Your task to perform on an android device: Open Wikipedia Image 0: 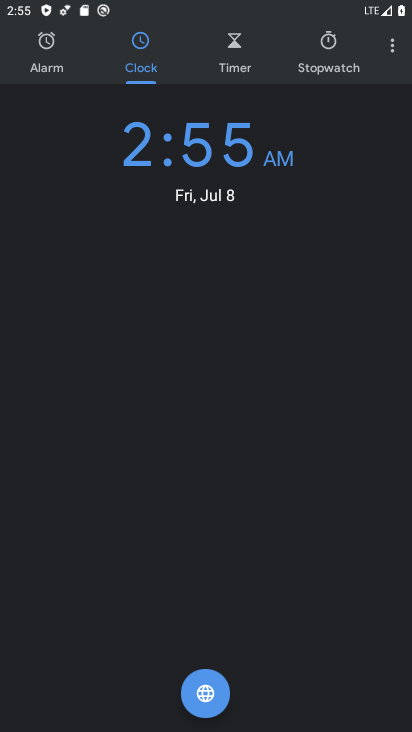
Step 0: press home button
Your task to perform on an android device: Open Wikipedia Image 1: 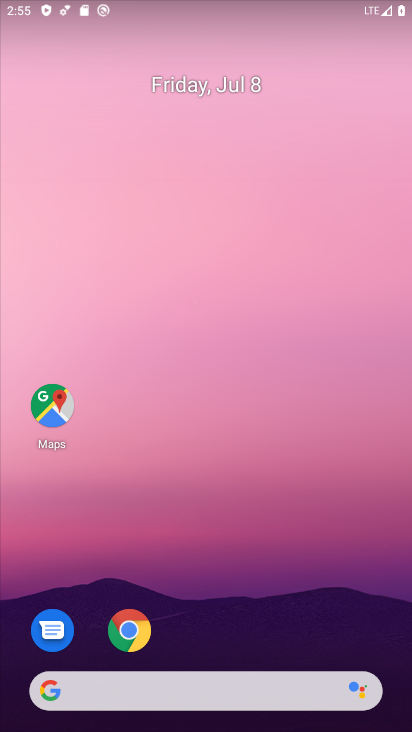
Step 1: click (225, 684)
Your task to perform on an android device: Open Wikipedia Image 2: 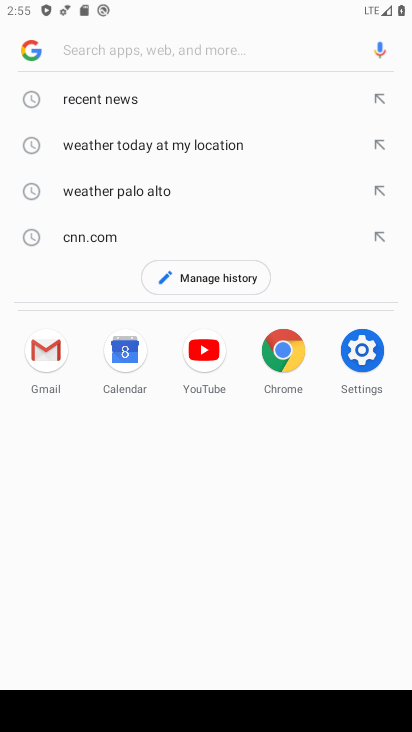
Step 2: type "wikipedia"
Your task to perform on an android device: Open Wikipedia Image 3: 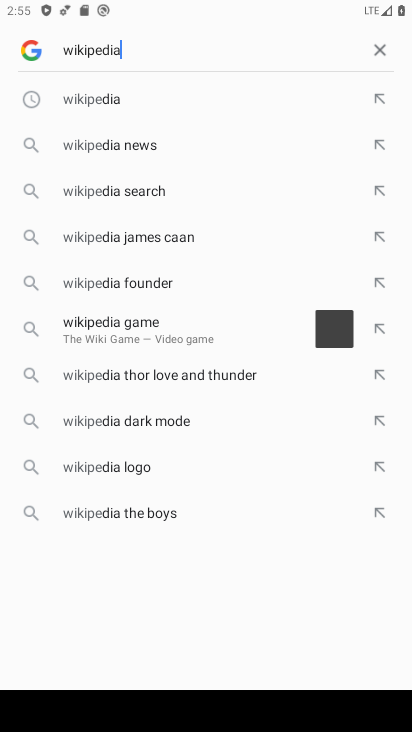
Step 3: press enter
Your task to perform on an android device: Open Wikipedia Image 4: 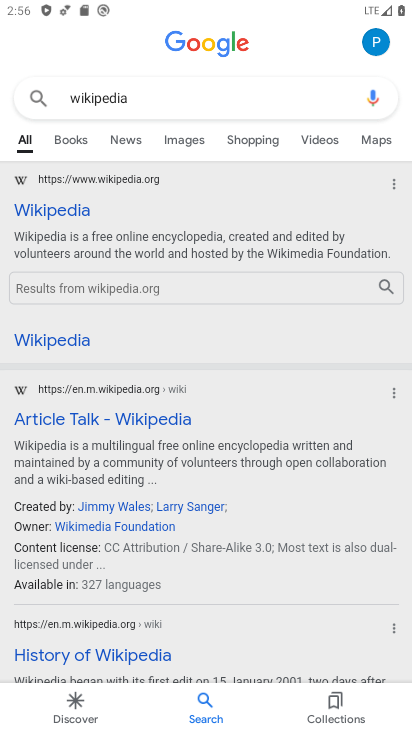
Step 4: task complete